Your task to perform on an android device: Clear all items from cart on ebay. Search for "macbook pro 13 inch" on ebay, select the first entry, add it to the cart, then select checkout. Image 0: 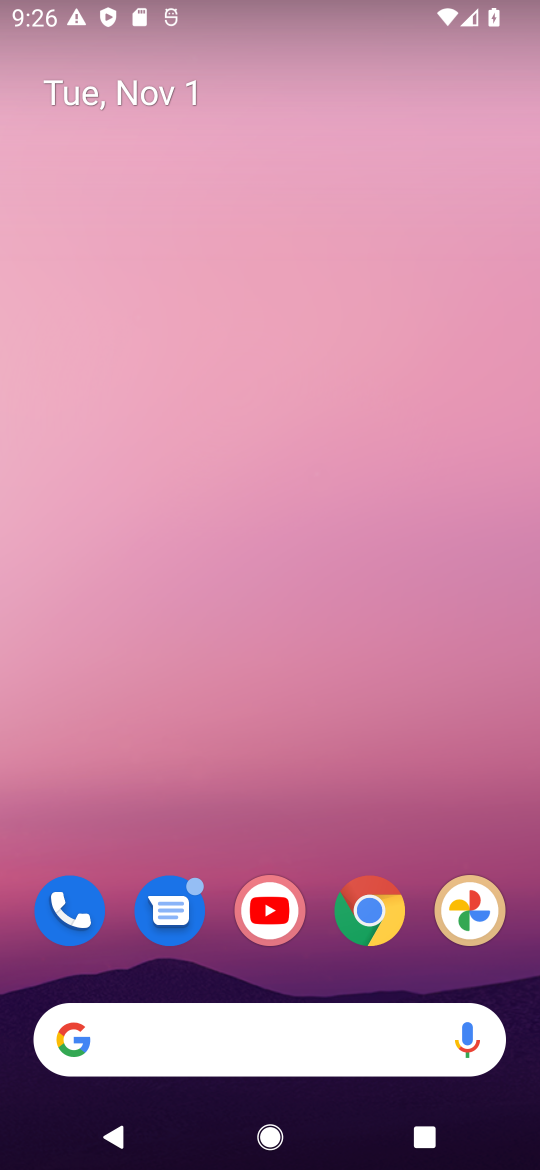
Step 0: click (380, 918)
Your task to perform on an android device: Clear all items from cart on ebay. Search for "macbook pro 13 inch" on ebay, select the first entry, add it to the cart, then select checkout. Image 1: 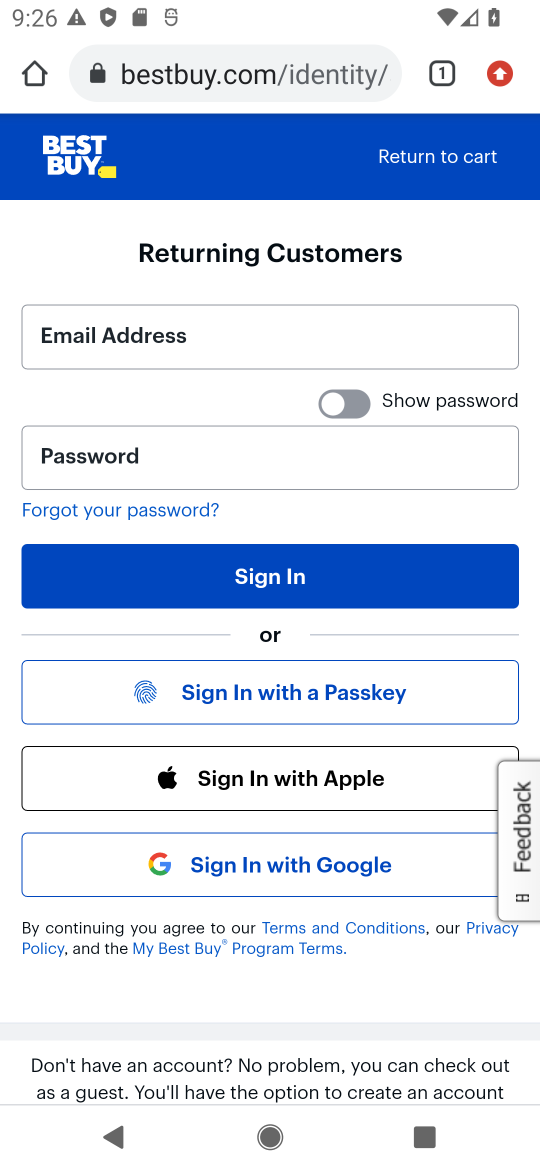
Step 1: click (206, 84)
Your task to perform on an android device: Clear all items from cart on ebay. Search for "macbook pro 13 inch" on ebay, select the first entry, add it to the cart, then select checkout. Image 2: 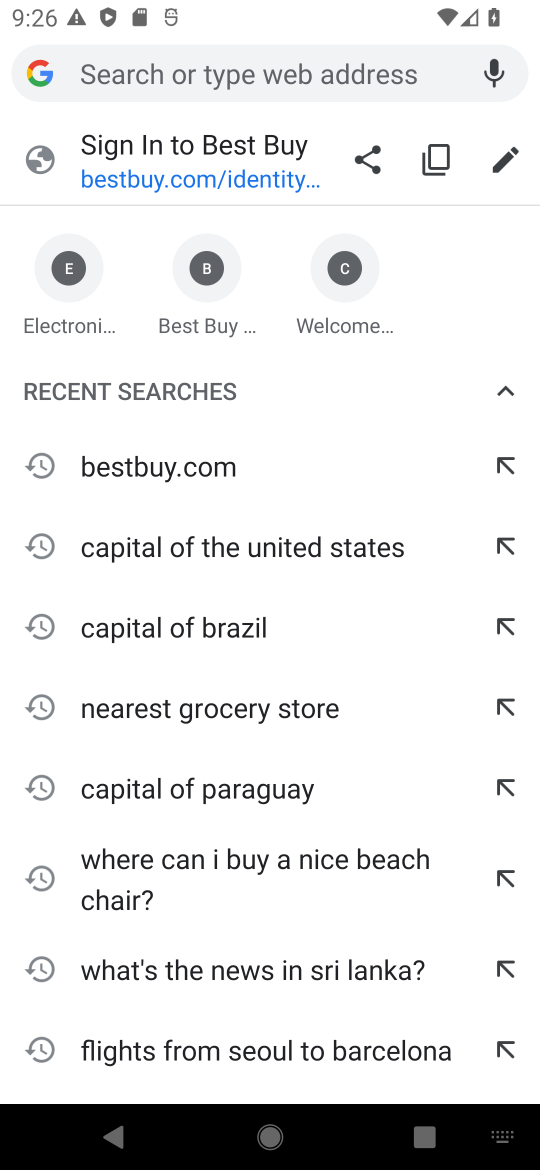
Step 2: type "ebay.com"
Your task to perform on an android device: Clear all items from cart on ebay. Search for "macbook pro 13 inch" on ebay, select the first entry, add it to the cart, then select checkout. Image 3: 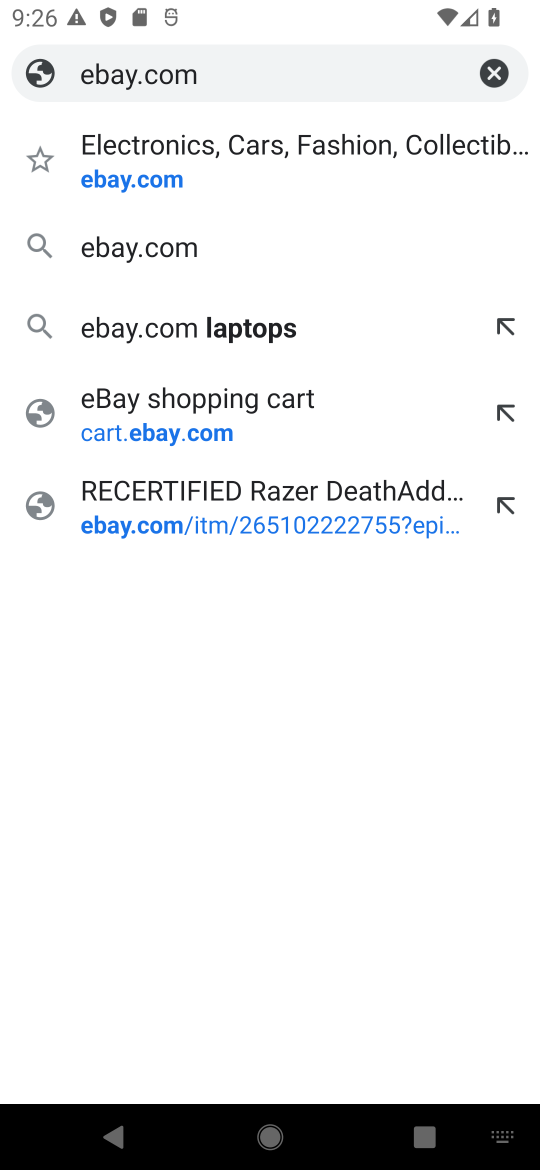
Step 3: click (125, 179)
Your task to perform on an android device: Clear all items from cart on ebay. Search for "macbook pro 13 inch" on ebay, select the first entry, add it to the cart, then select checkout. Image 4: 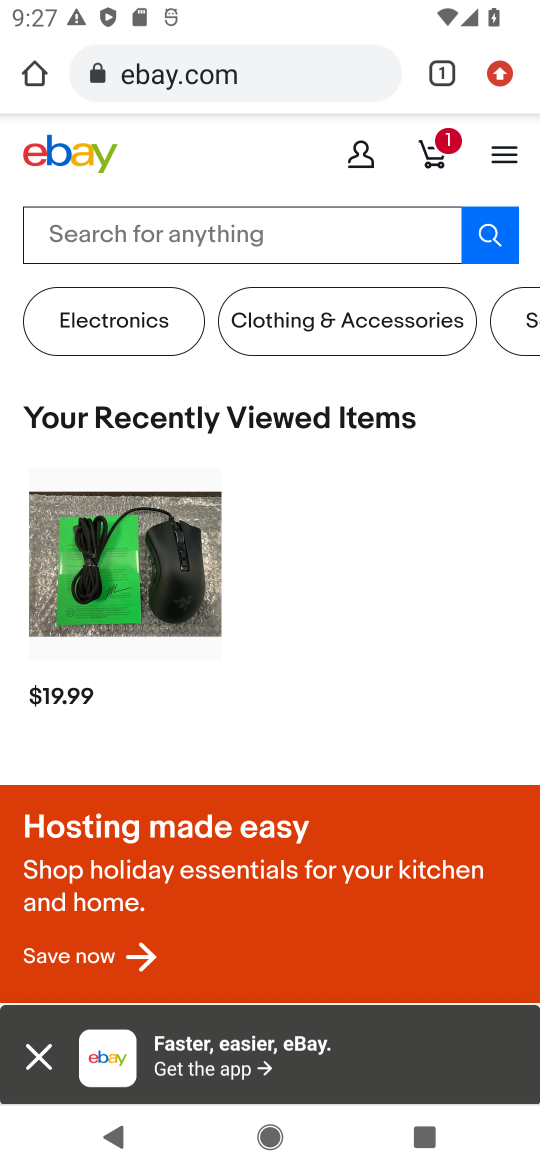
Step 4: click (443, 157)
Your task to perform on an android device: Clear all items from cart on ebay. Search for "macbook pro 13 inch" on ebay, select the first entry, add it to the cart, then select checkout. Image 5: 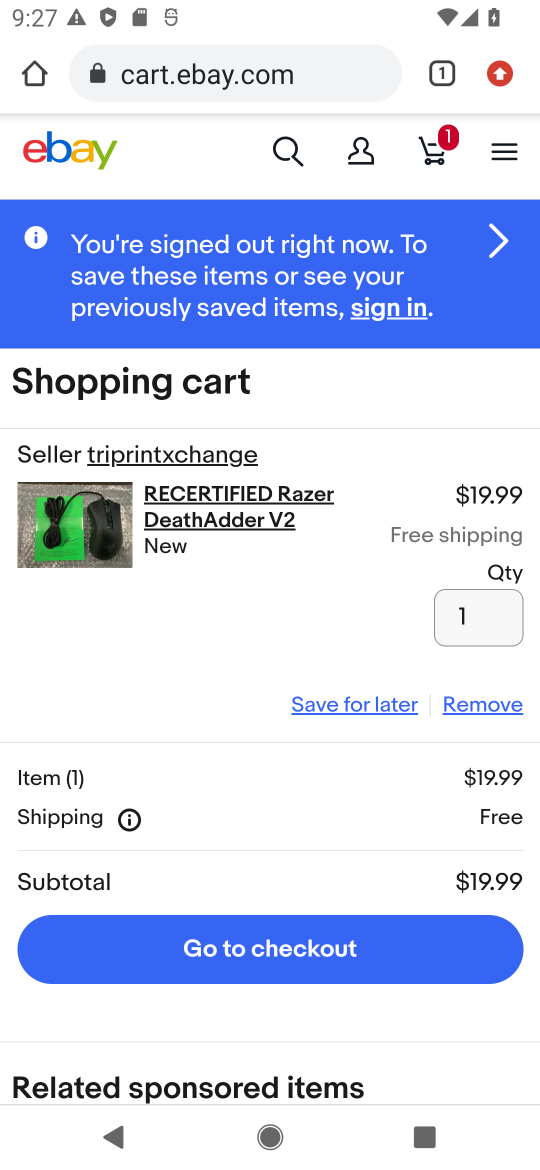
Step 5: click (471, 710)
Your task to perform on an android device: Clear all items from cart on ebay. Search for "macbook pro 13 inch" on ebay, select the first entry, add it to the cart, then select checkout. Image 6: 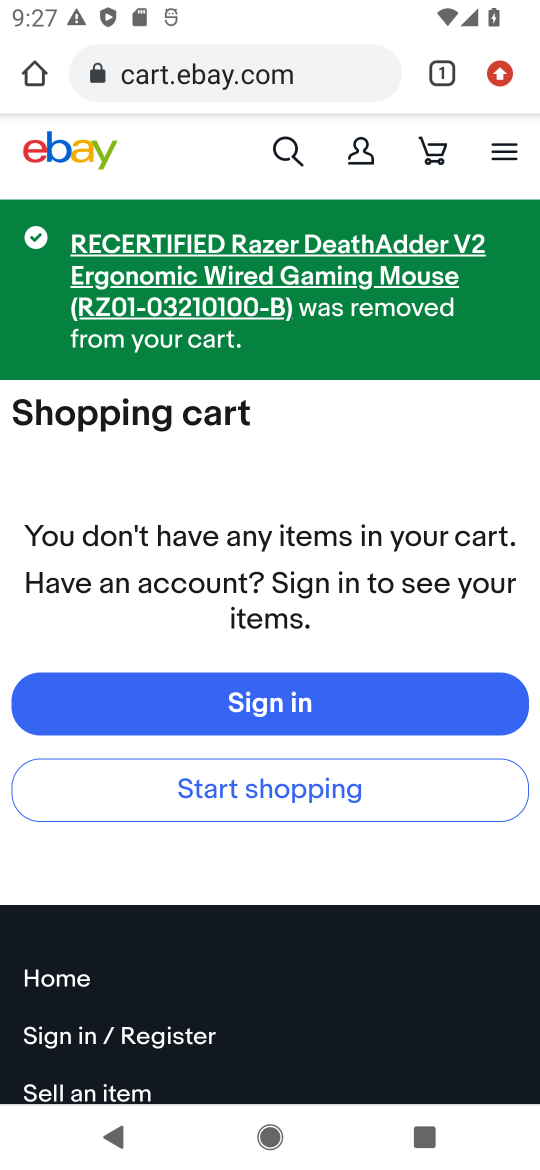
Step 6: click (279, 149)
Your task to perform on an android device: Clear all items from cart on ebay. Search for "macbook pro 13 inch" on ebay, select the first entry, add it to the cart, then select checkout. Image 7: 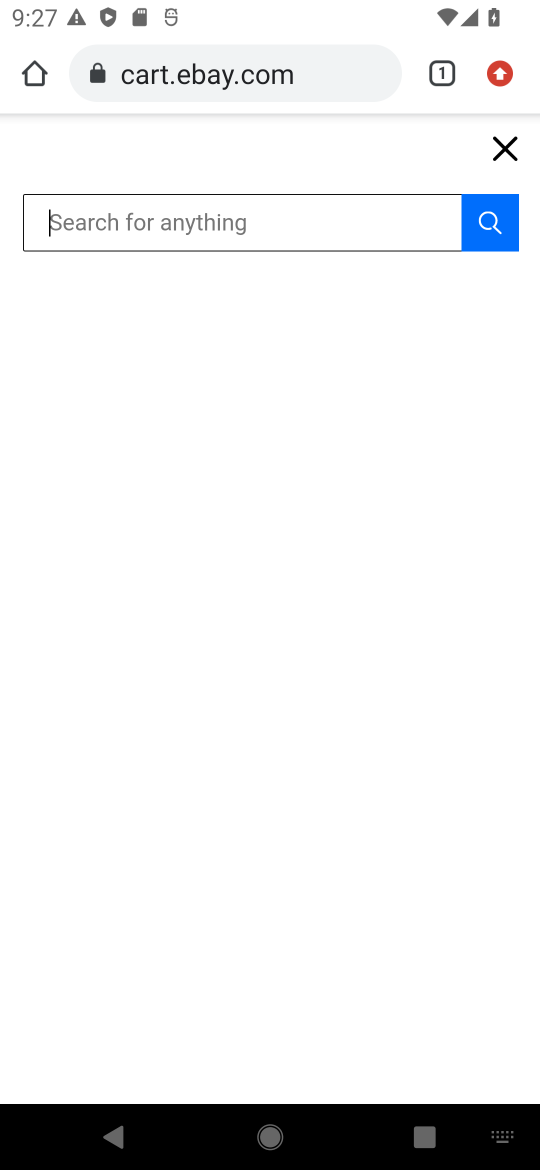
Step 7: type "macbook pro 13 inch"
Your task to perform on an android device: Clear all items from cart on ebay. Search for "macbook pro 13 inch" on ebay, select the first entry, add it to the cart, then select checkout. Image 8: 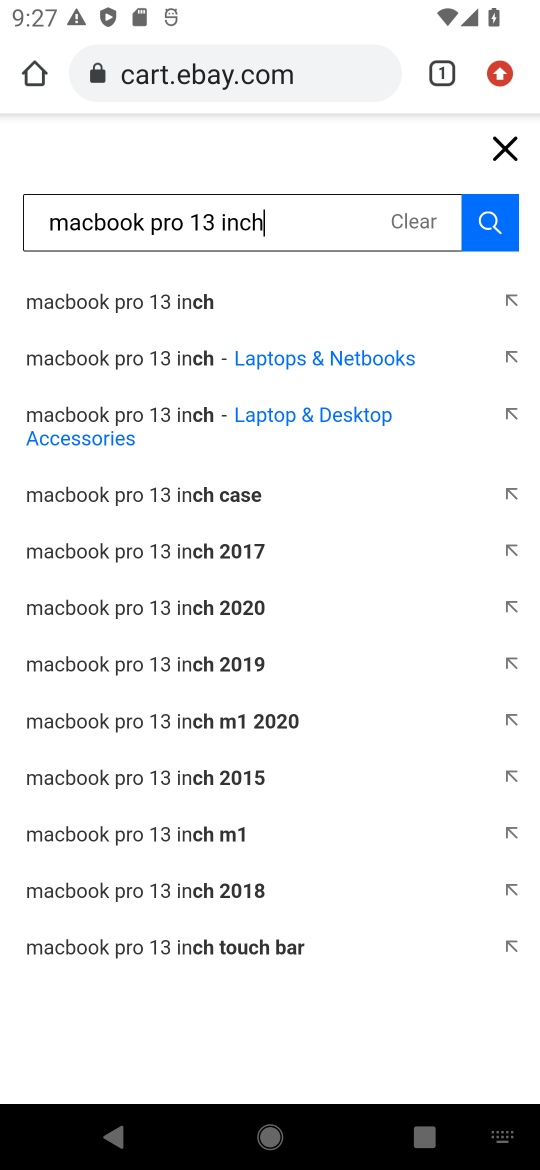
Step 8: click (114, 309)
Your task to perform on an android device: Clear all items from cart on ebay. Search for "macbook pro 13 inch" on ebay, select the first entry, add it to the cart, then select checkout. Image 9: 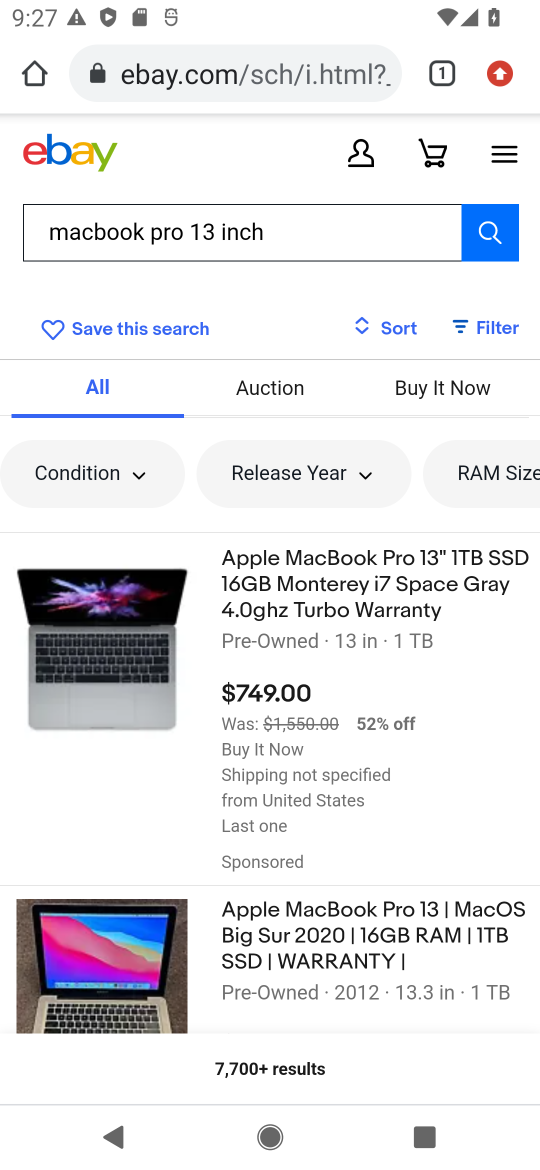
Step 9: click (281, 635)
Your task to perform on an android device: Clear all items from cart on ebay. Search for "macbook pro 13 inch" on ebay, select the first entry, add it to the cart, then select checkout. Image 10: 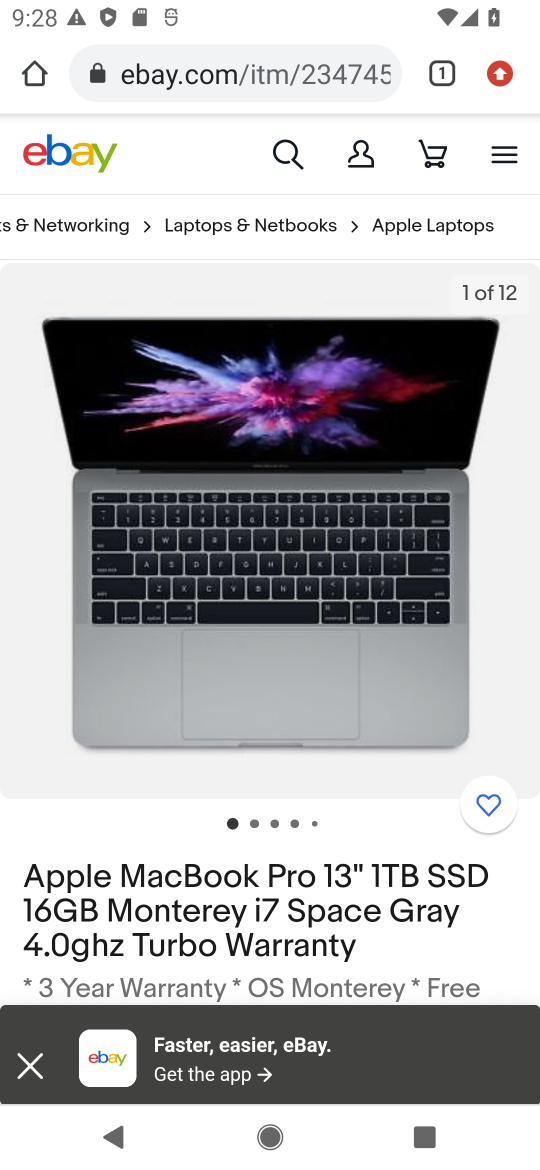
Step 10: drag from (235, 788) to (259, 404)
Your task to perform on an android device: Clear all items from cart on ebay. Search for "macbook pro 13 inch" on ebay, select the first entry, add it to the cart, then select checkout. Image 11: 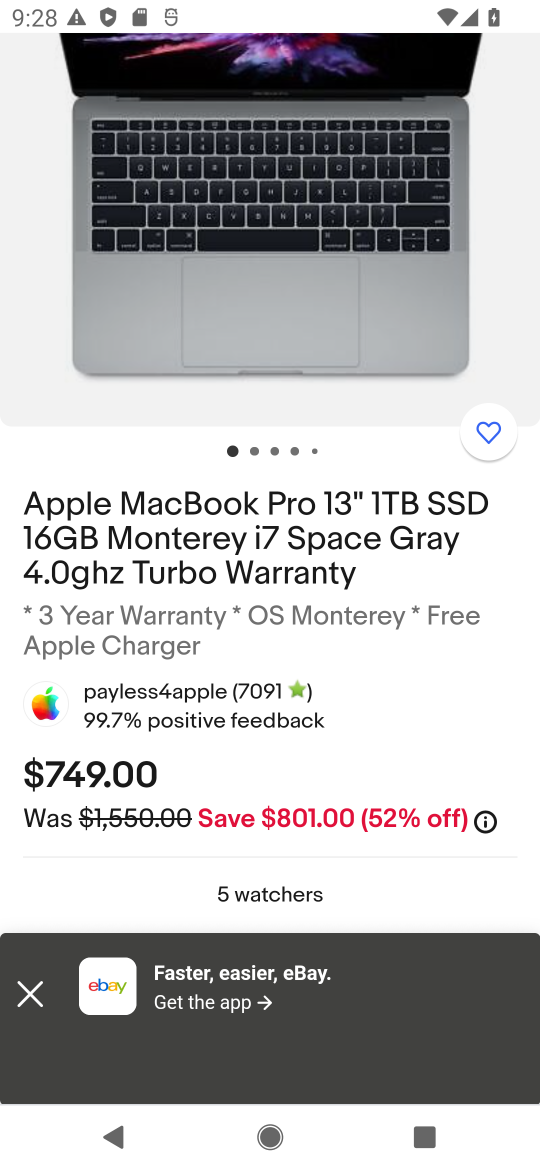
Step 11: drag from (241, 815) to (245, 499)
Your task to perform on an android device: Clear all items from cart on ebay. Search for "macbook pro 13 inch" on ebay, select the first entry, add it to the cart, then select checkout. Image 12: 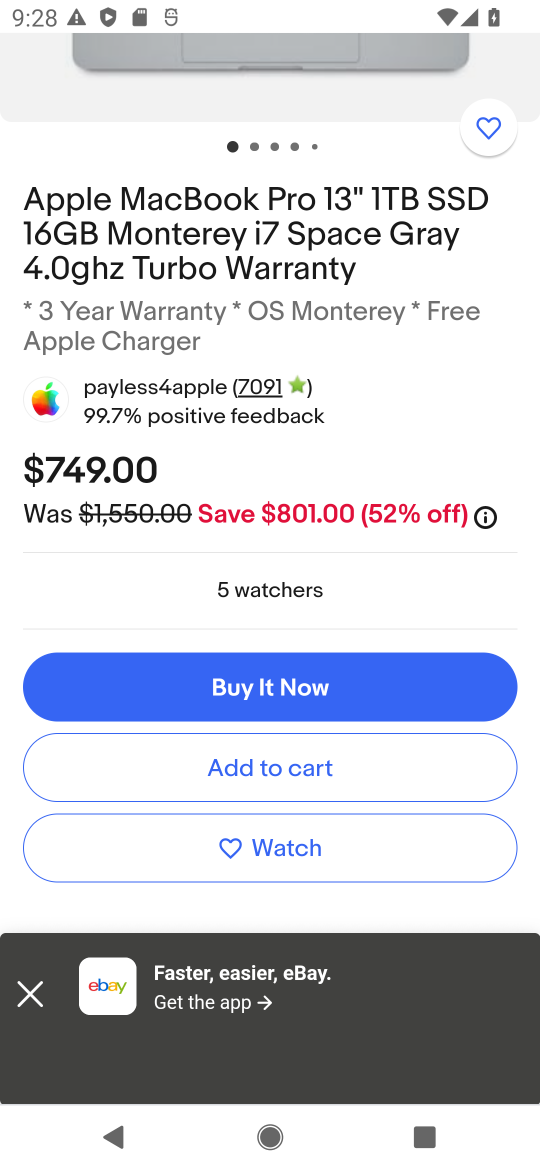
Step 12: click (233, 770)
Your task to perform on an android device: Clear all items from cart on ebay. Search for "macbook pro 13 inch" on ebay, select the first entry, add it to the cart, then select checkout. Image 13: 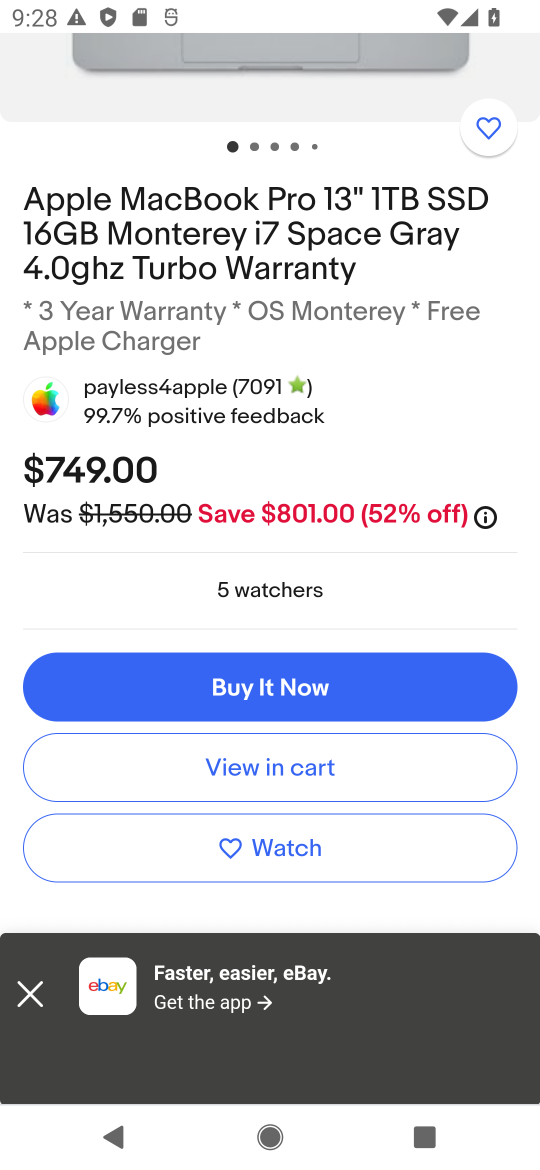
Step 13: click (233, 770)
Your task to perform on an android device: Clear all items from cart on ebay. Search for "macbook pro 13 inch" on ebay, select the first entry, add it to the cart, then select checkout. Image 14: 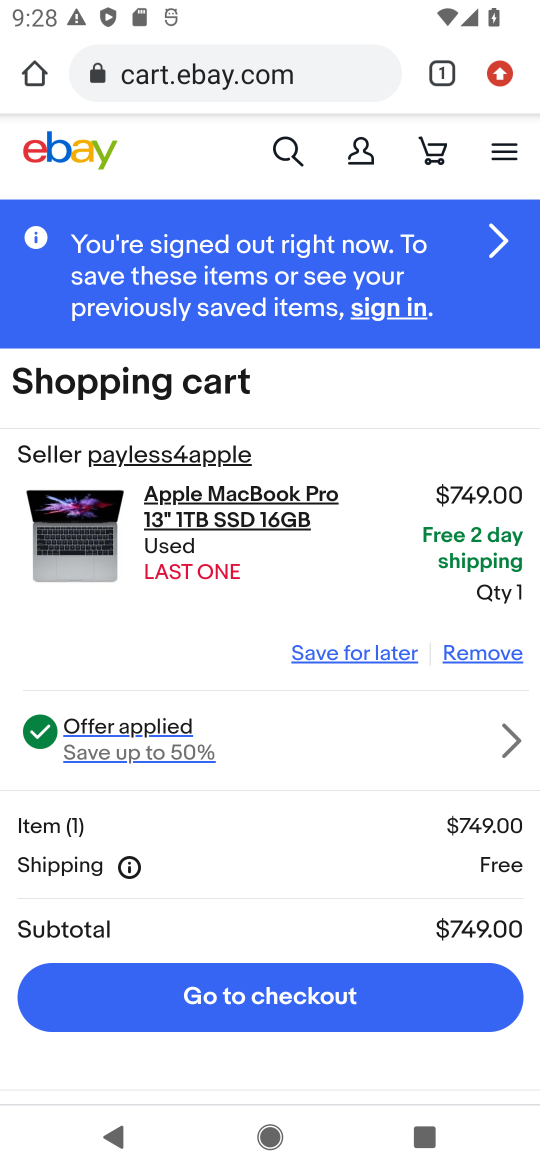
Step 14: click (242, 995)
Your task to perform on an android device: Clear all items from cart on ebay. Search for "macbook pro 13 inch" on ebay, select the first entry, add it to the cart, then select checkout. Image 15: 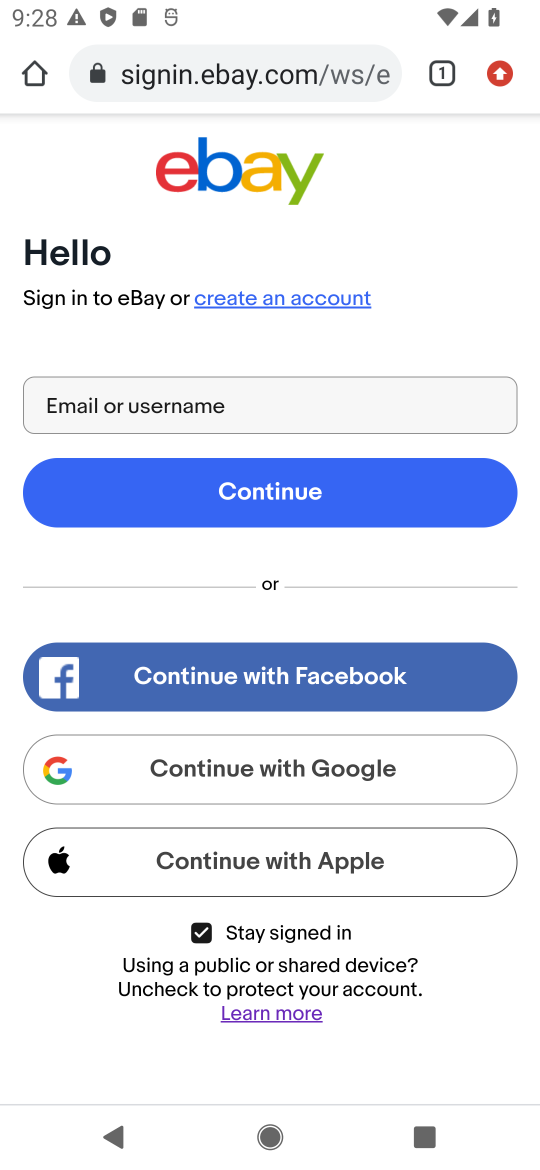
Step 15: task complete